Your task to perform on an android device: What's on my calendar tomorrow? Image 0: 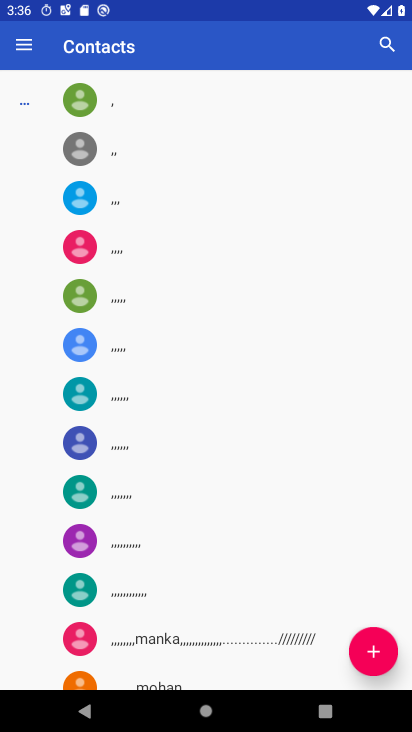
Step 0: press home button
Your task to perform on an android device: What's on my calendar tomorrow? Image 1: 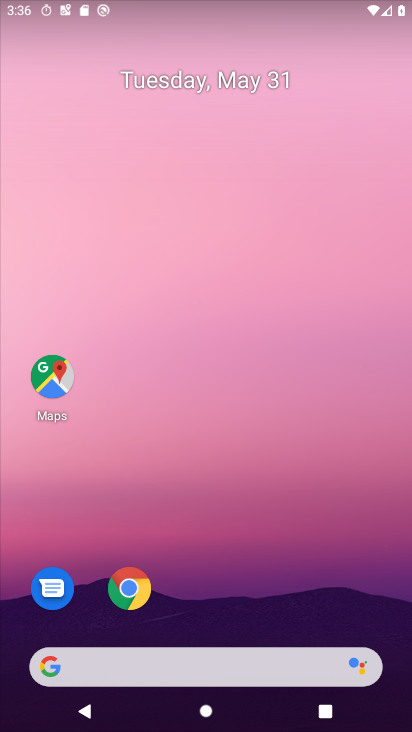
Step 1: drag from (202, 713) to (273, 317)
Your task to perform on an android device: What's on my calendar tomorrow? Image 2: 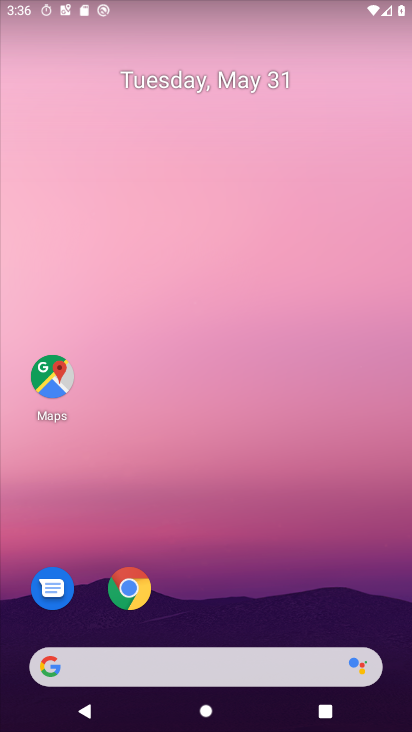
Step 2: drag from (225, 693) to (225, 336)
Your task to perform on an android device: What's on my calendar tomorrow? Image 3: 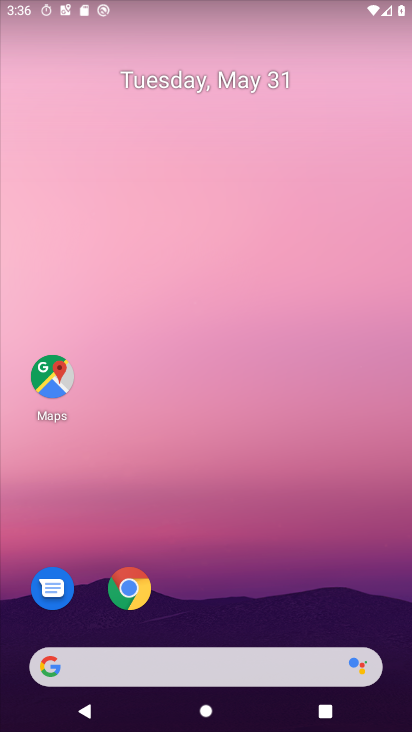
Step 3: drag from (192, 682) to (183, 372)
Your task to perform on an android device: What's on my calendar tomorrow? Image 4: 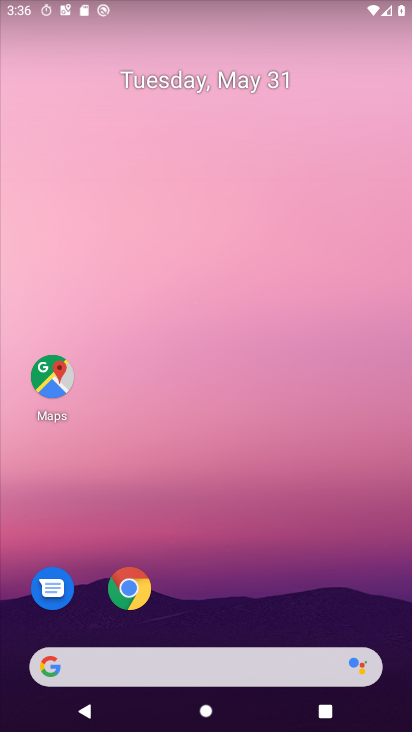
Step 4: drag from (212, 701) to (229, 62)
Your task to perform on an android device: What's on my calendar tomorrow? Image 5: 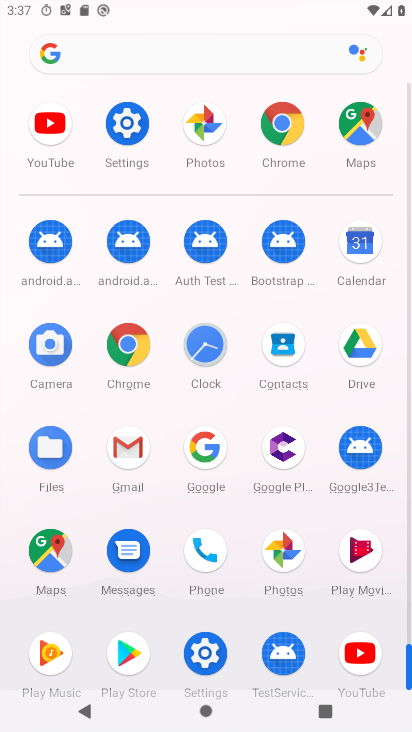
Step 5: click (370, 264)
Your task to perform on an android device: What's on my calendar tomorrow? Image 6: 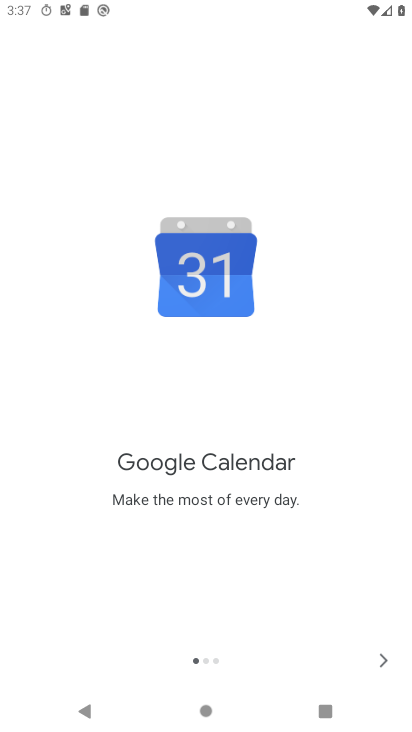
Step 6: click (382, 661)
Your task to perform on an android device: What's on my calendar tomorrow? Image 7: 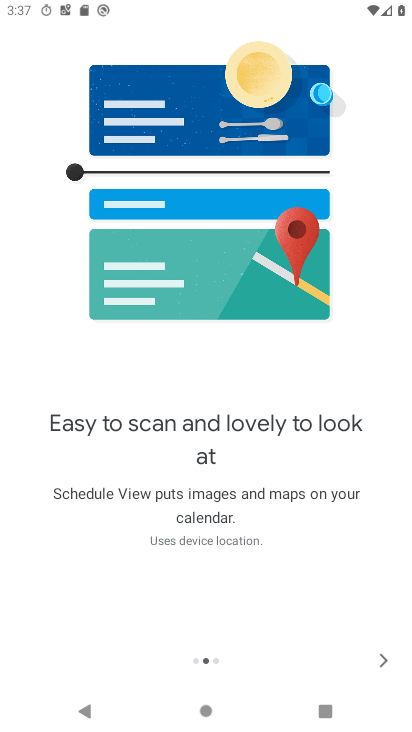
Step 7: click (382, 661)
Your task to perform on an android device: What's on my calendar tomorrow? Image 8: 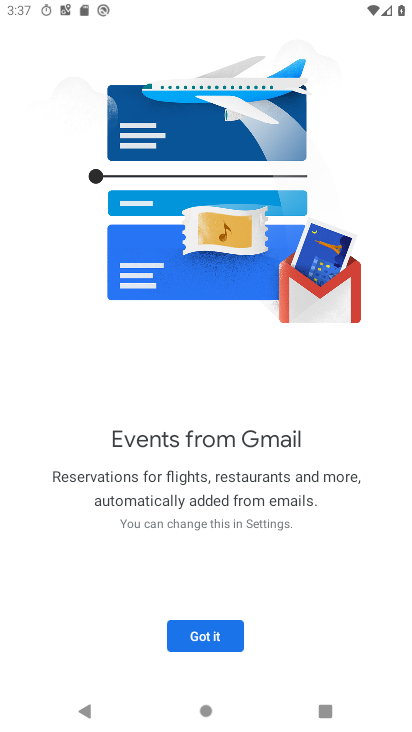
Step 8: click (220, 648)
Your task to perform on an android device: What's on my calendar tomorrow? Image 9: 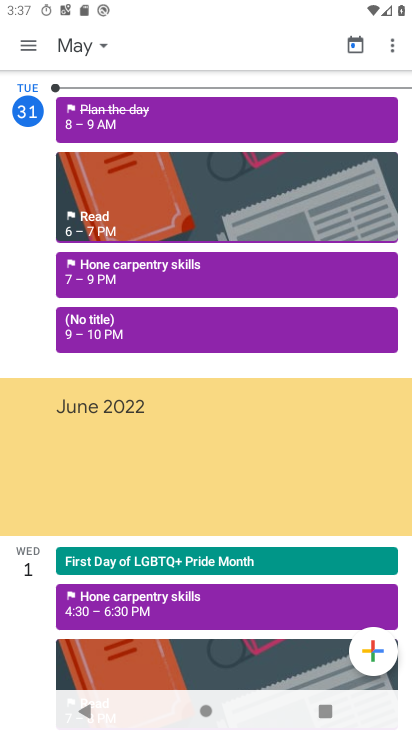
Step 9: task complete